Your task to perform on an android device: Search for 8K TVs on Best Buy. Image 0: 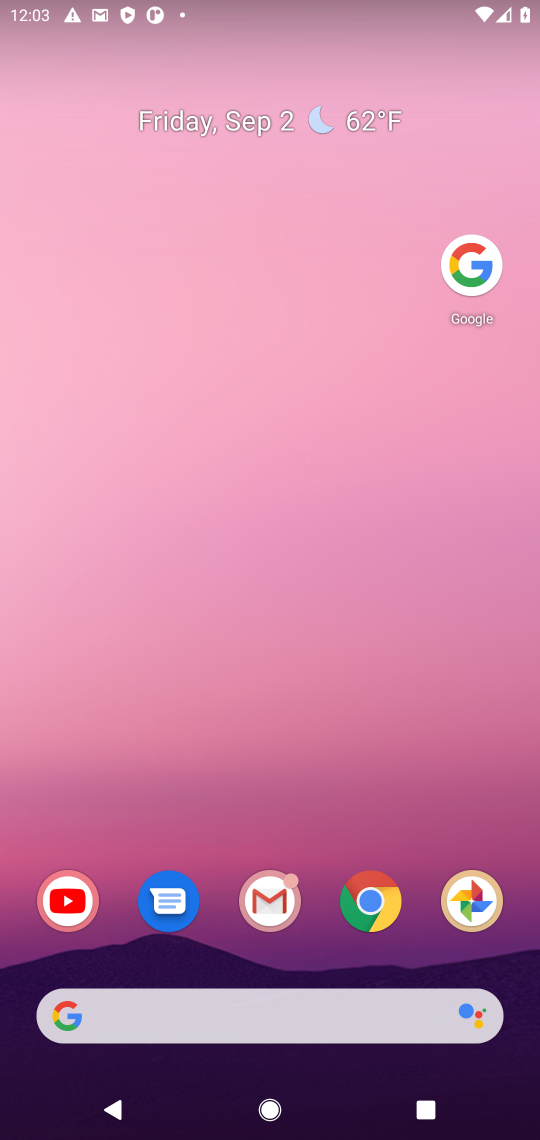
Step 0: drag from (160, 624) to (160, 525)
Your task to perform on an android device: Search for 8K TVs on Best Buy. Image 1: 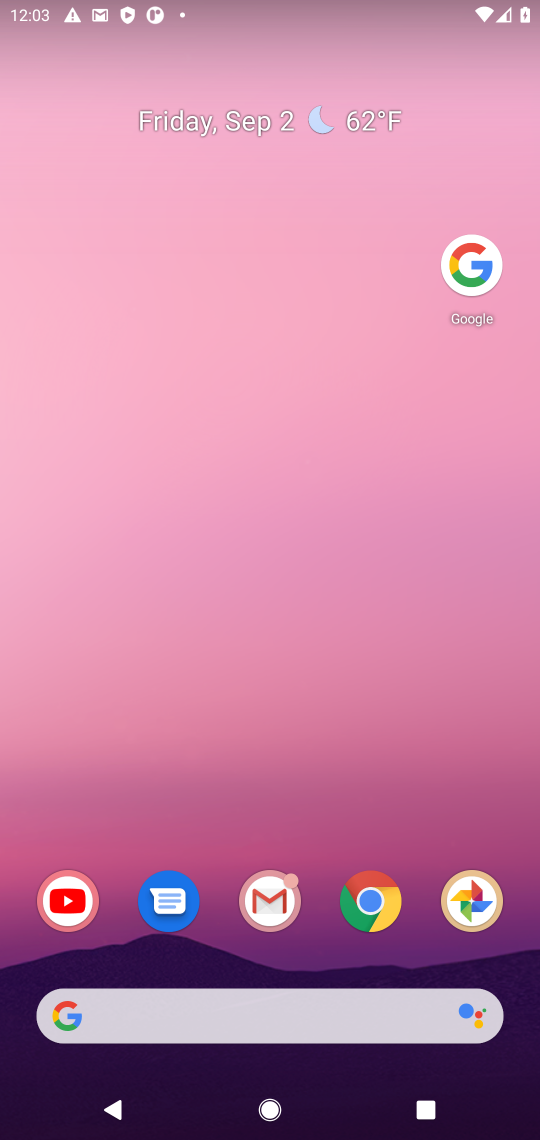
Step 1: click (287, 295)
Your task to perform on an android device: Search for 8K TVs on Best Buy. Image 2: 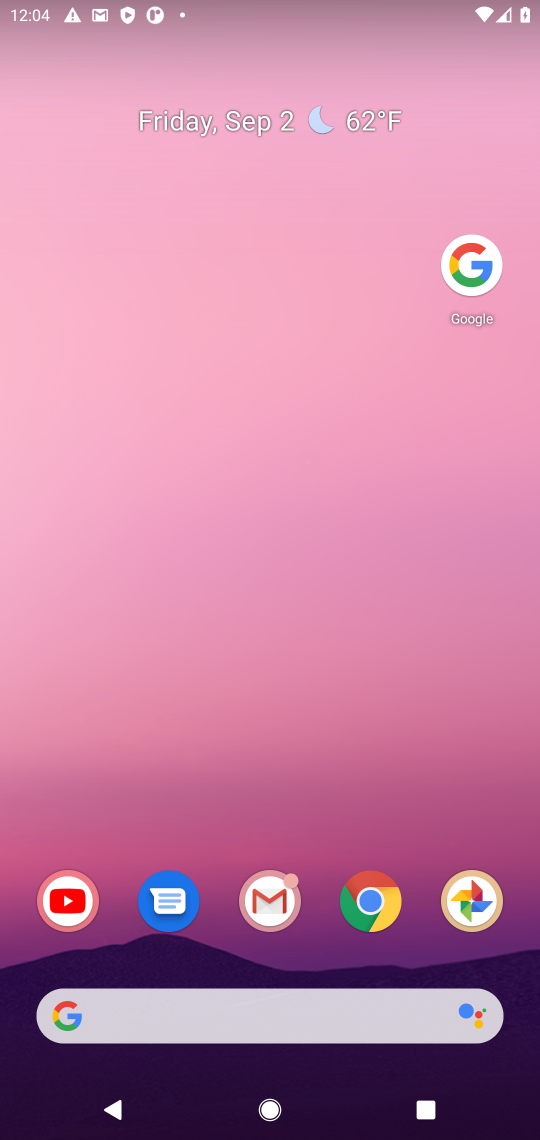
Step 2: drag from (283, 909) to (304, 256)
Your task to perform on an android device: Search for 8K TVs on Best Buy. Image 3: 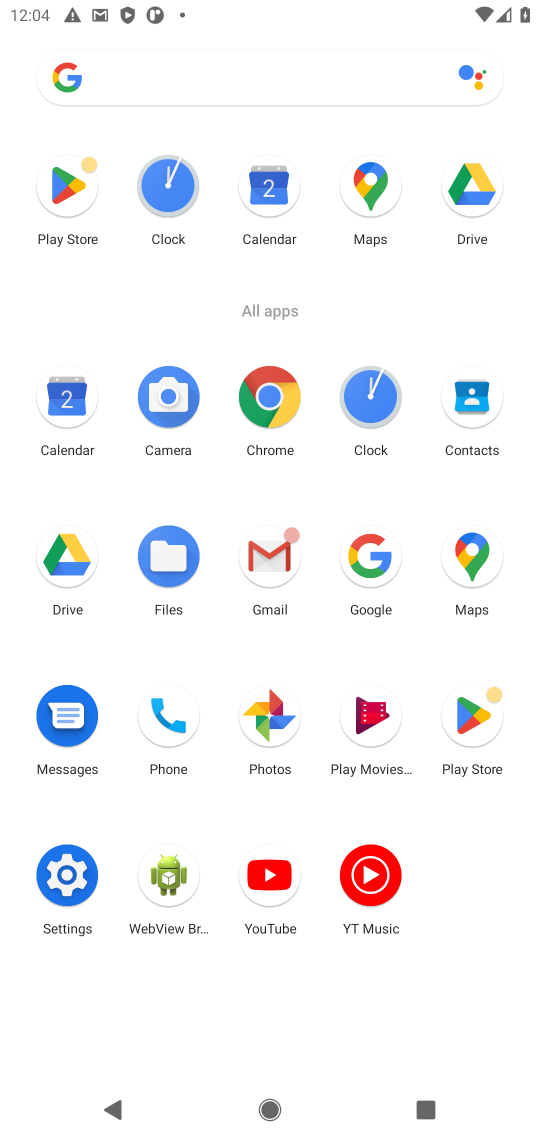
Step 3: click (380, 552)
Your task to perform on an android device: Search for 8K TVs on Best Buy. Image 4: 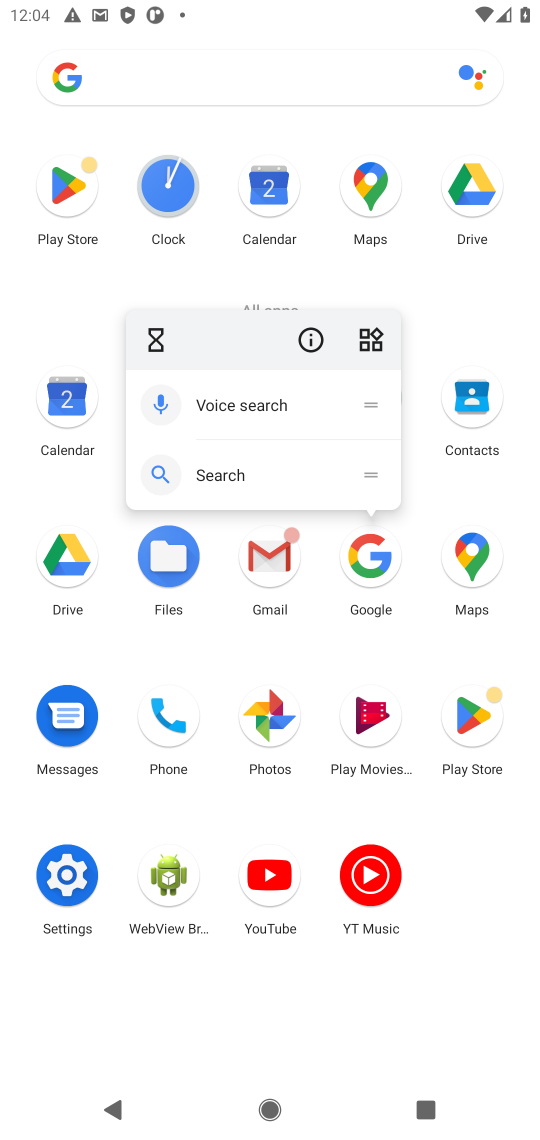
Step 4: click (380, 552)
Your task to perform on an android device: Search for 8K TVs on Best Buy. Image 5: 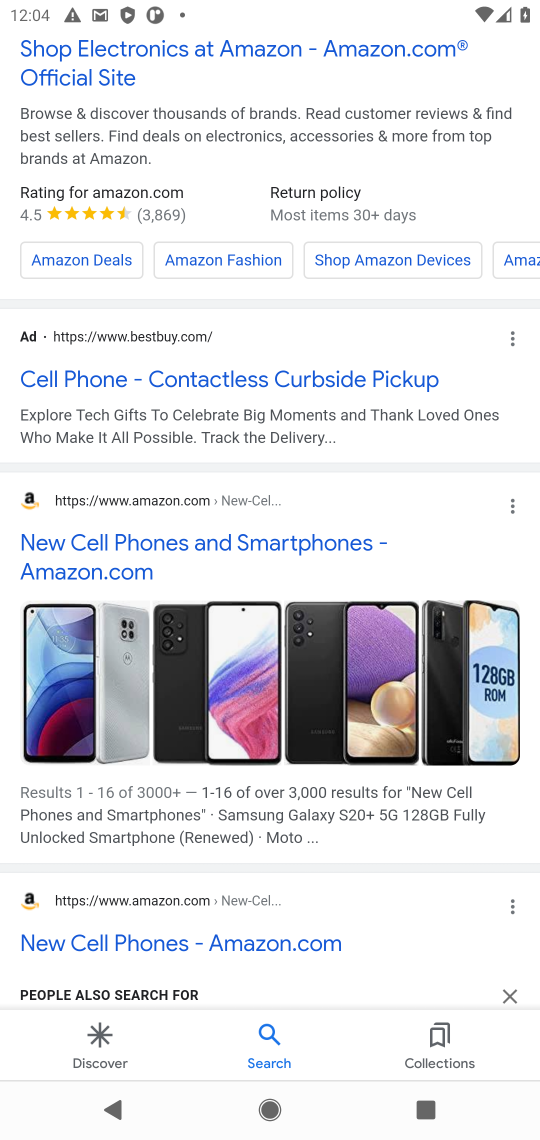
Step 5: drag from (287, 204) to (292, 968)
Your task to perform on an android device: Search for 8K TVs on Best Buy. Image 6: 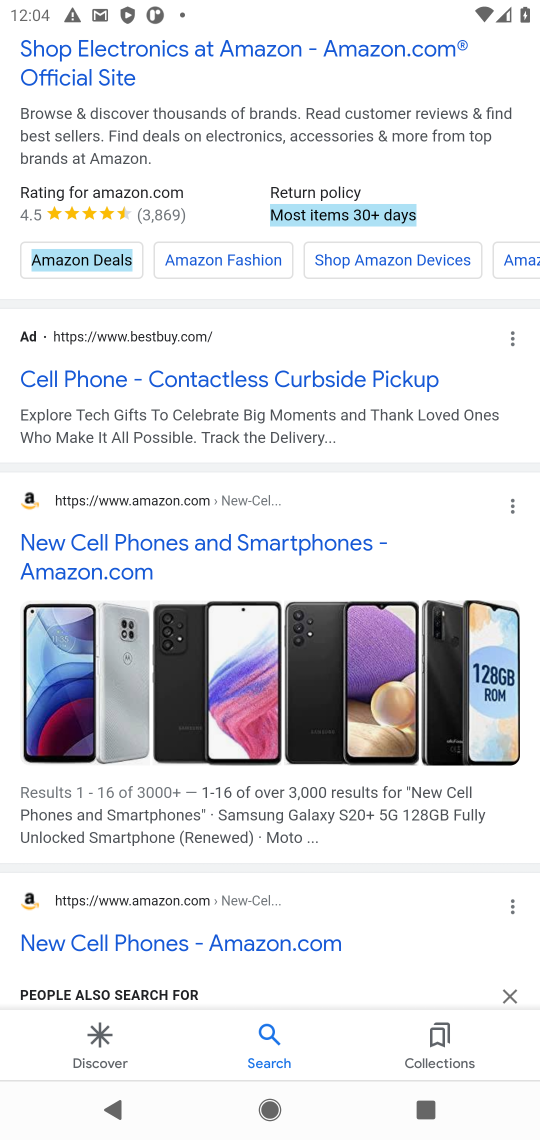
Step 6: drag from (238, 161) to (226, 1057)
Your task to perform on an android device: Search for 8K TVs on Best Buy. Image 7: 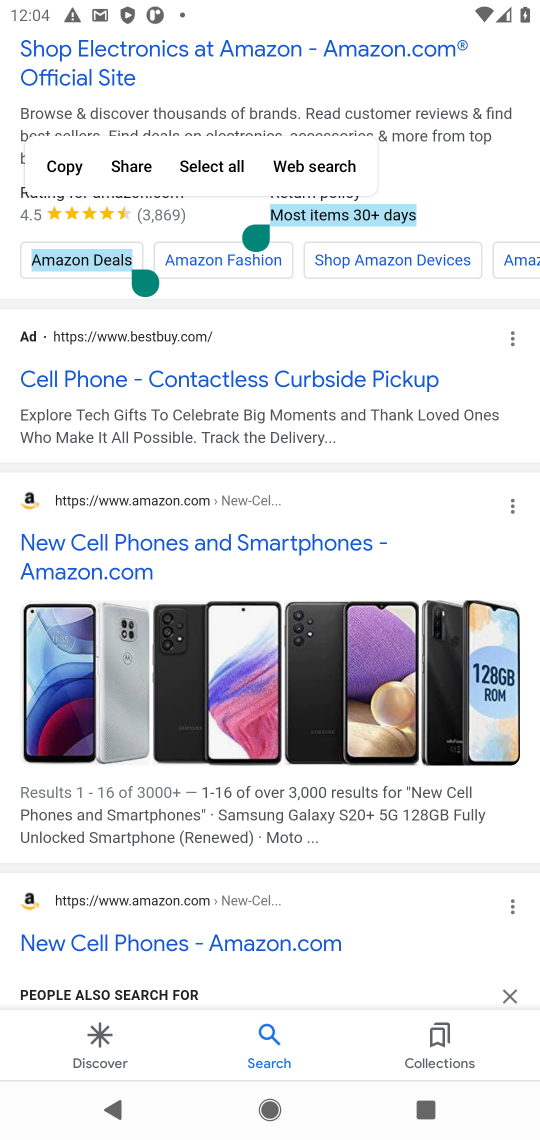
Step 7: drag from (443, 143) to (449, 742)
Your task to perform on an android device: Search for 8K TVs on Best Buy. Image 8: 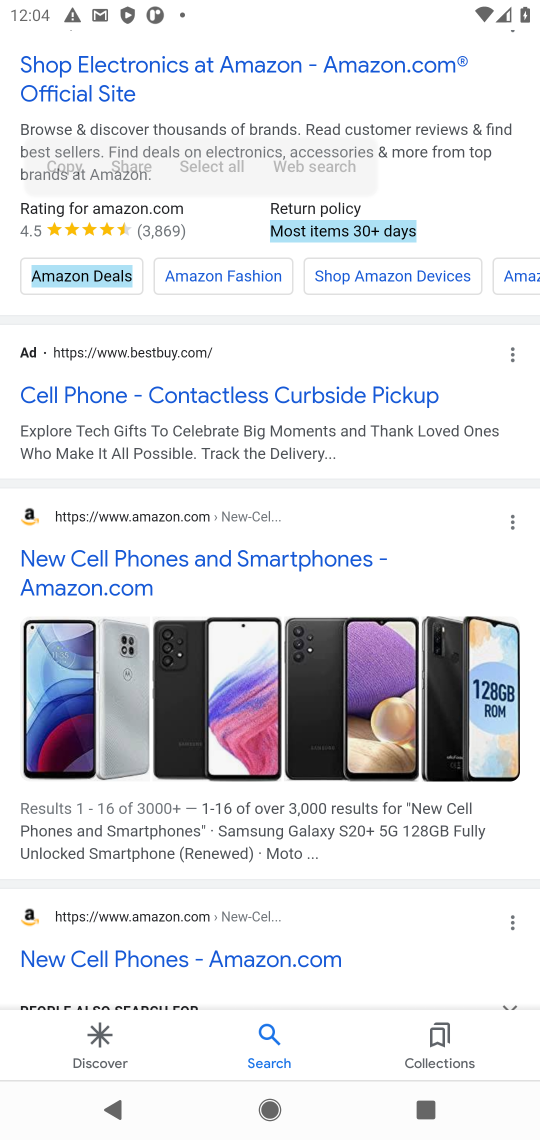
Step 8: drag from (418, 357) to (219, 828)
Your task to perform on an android device: Search for 8K TVs on Best Buy. Image 9: 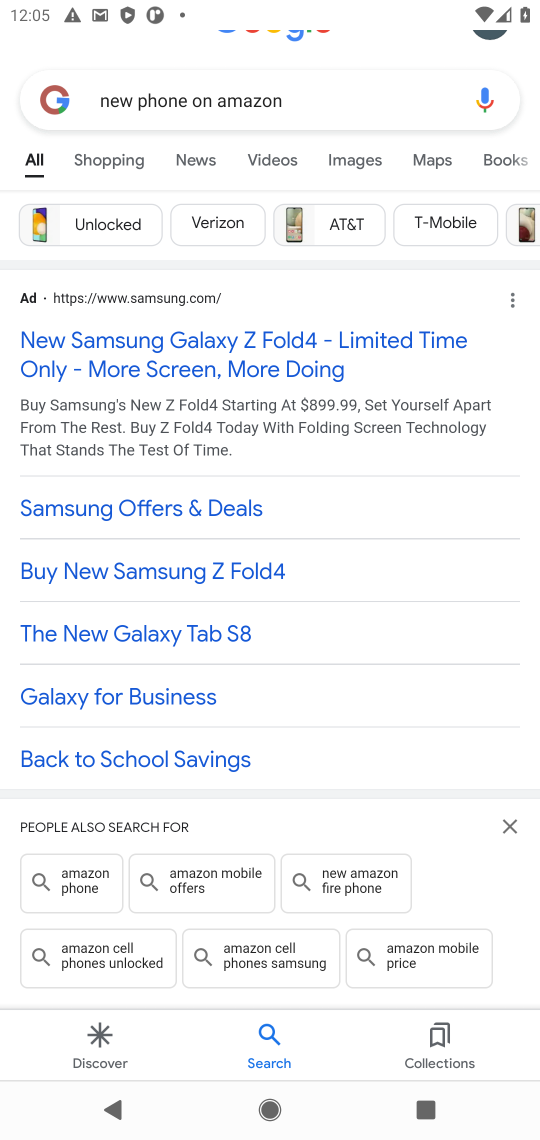
Step 9: click (256, 885)
Your task to perform on an android device: Search for 8K TVs on Best Buy. Image 10: 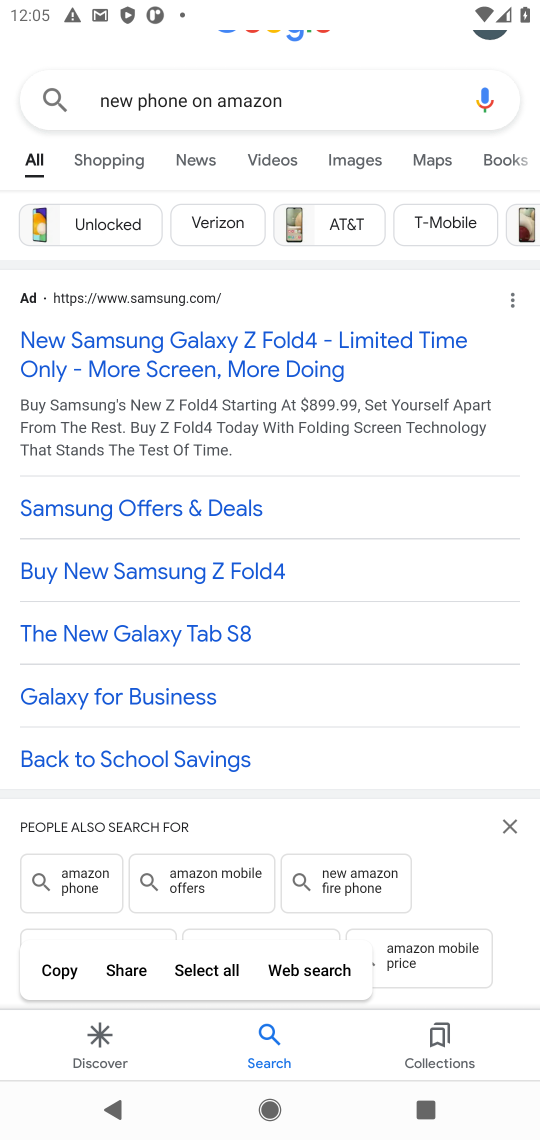
Step 10: click (334, 90)
Your task to perform on an android device: Search for 8K TVs on Best Buy. Image 11: 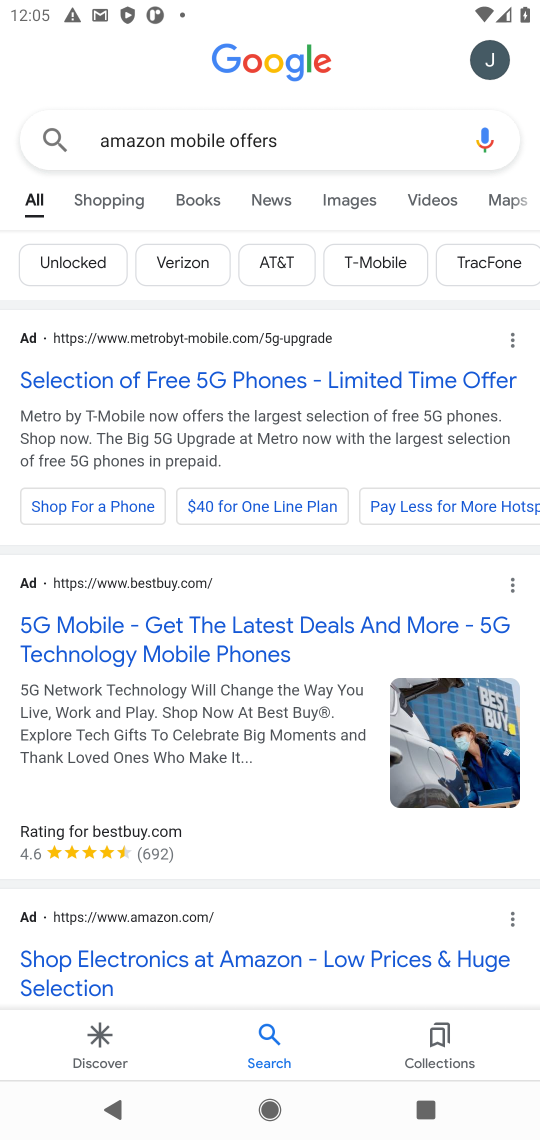
Step 11: click (400, 136)
Your task to perform on an android device: Search for 8K TVs on Best Buy. Image 12: 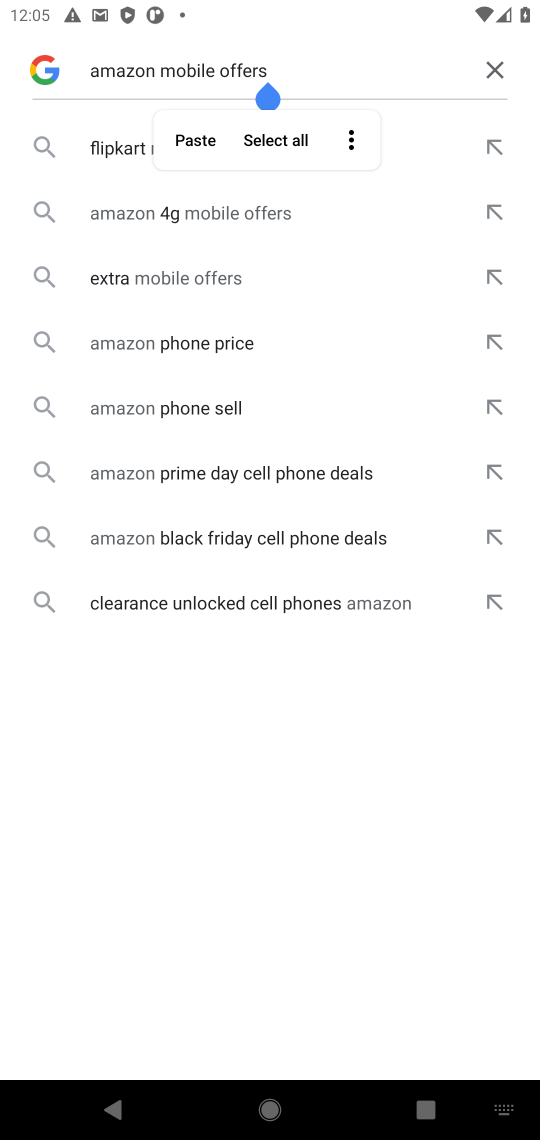
Step 12: click (494, 67)
Your task to perform on an android device: Search for 8K TVs on Best Buy. Image 13: 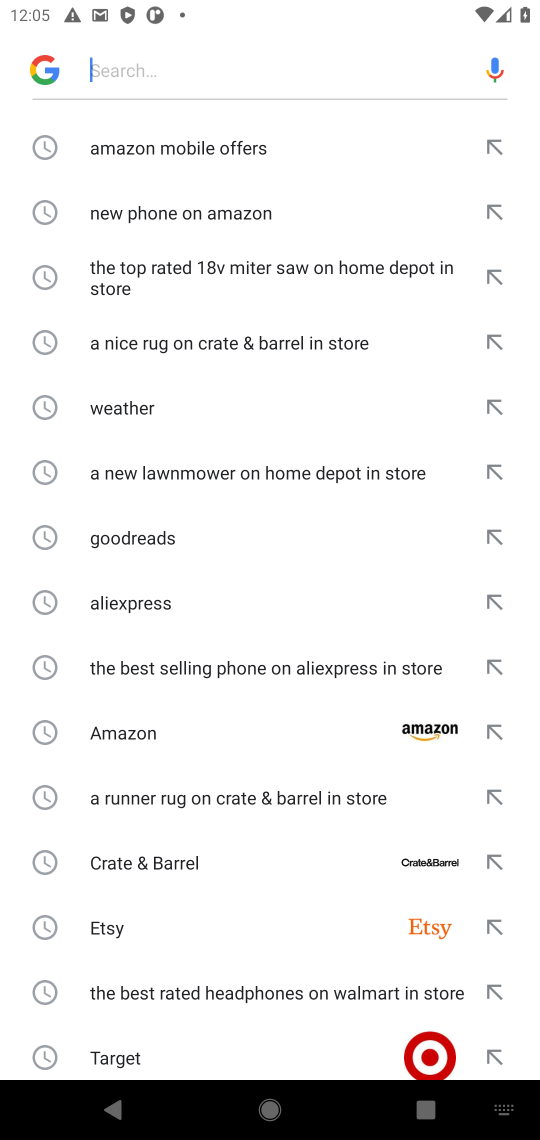
Step 13: click (153, 65)
Your task to perform on an android device: Search for 8K TVs on Best Buy. Image 14: 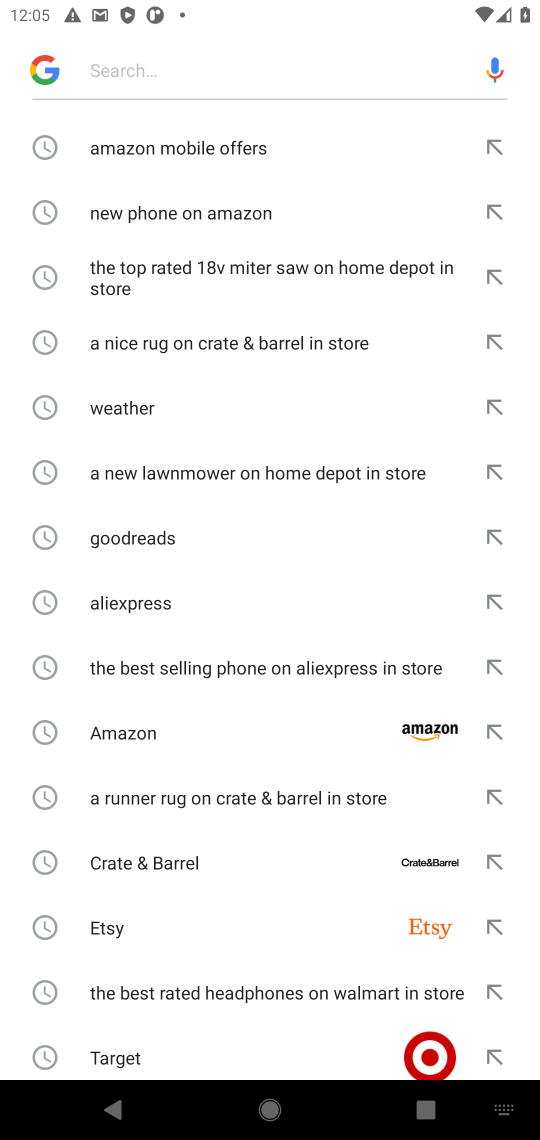
Step 14: type "8K TVs on Best Buy. "
Your task to perform on an android device: Search for 8K TVs on Best Buy. Image 15: 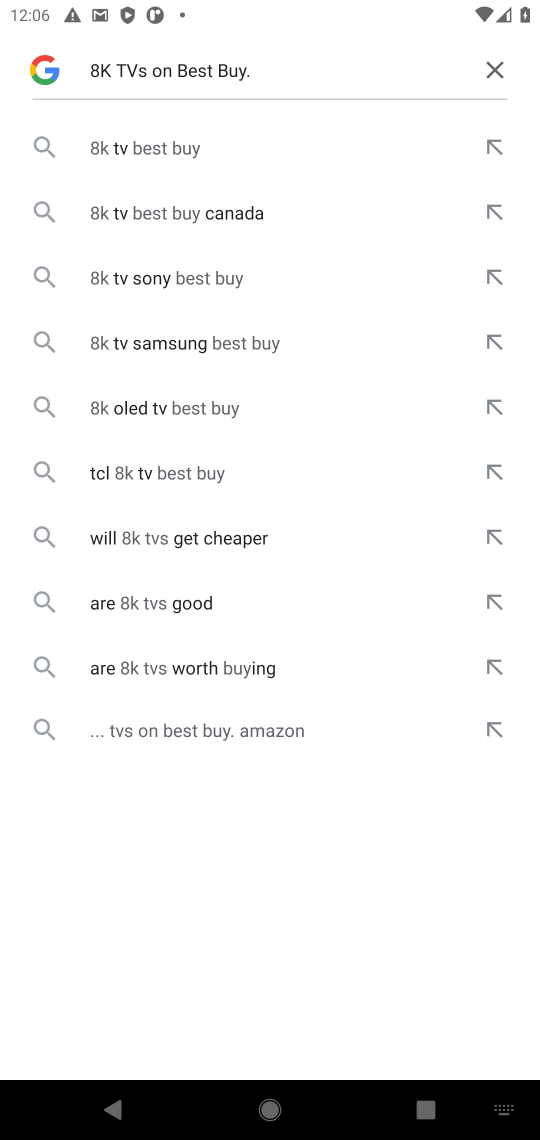
Step 15: click (171, 149)
Your task to perform on an android device: Search for 8K TVs on Best Buy. Image 16: 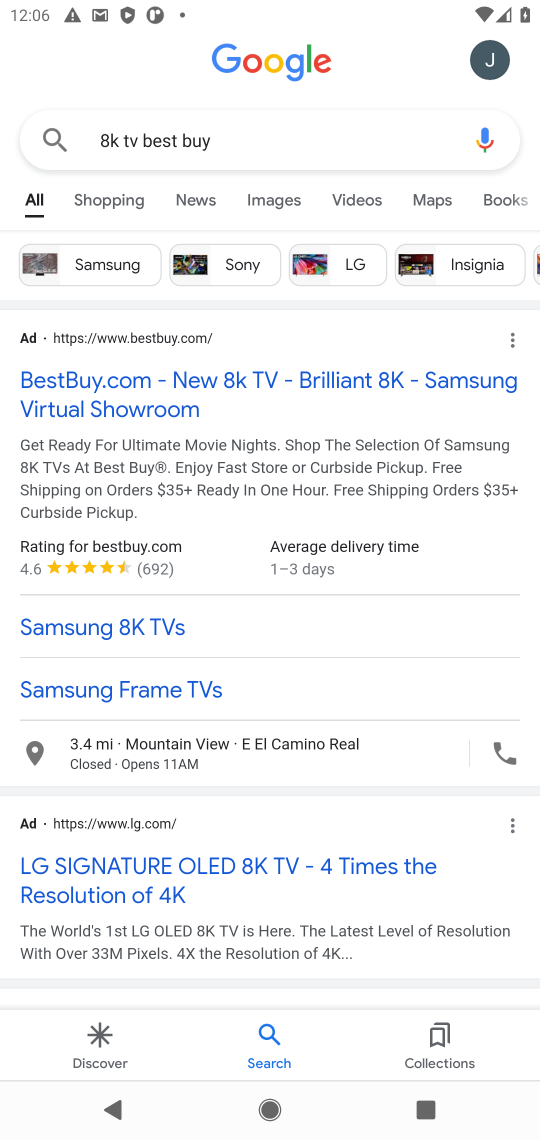
Step 16: click (101, 374)
Your task to perform on an android device: Search for 8K TVs on Best Buy. Image 17: 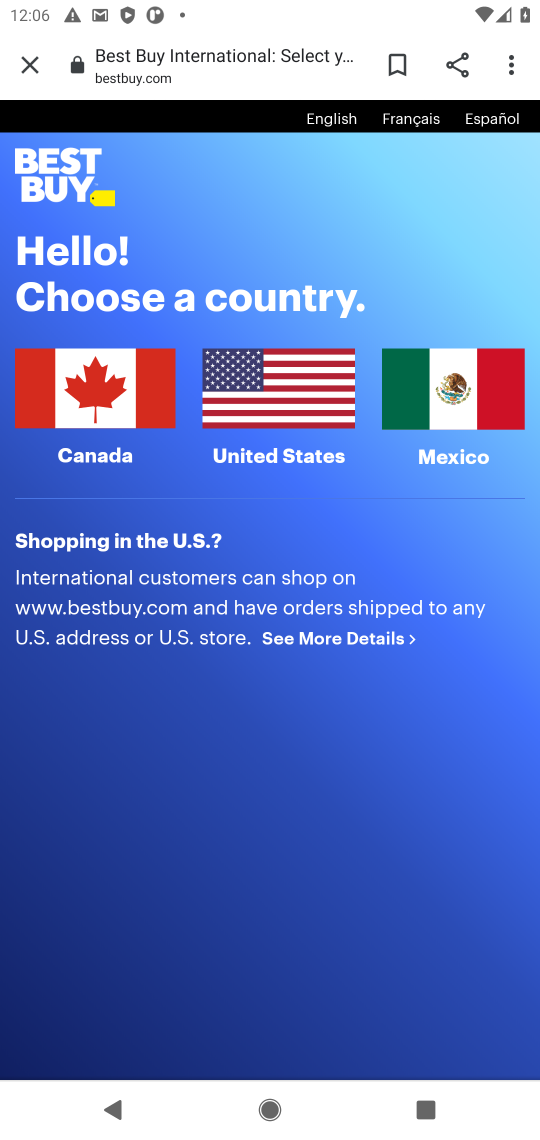
Step 17: click (320, 383)
Your task to perform on an android device: Search for 8K TVs on Best Buy. Image 18: 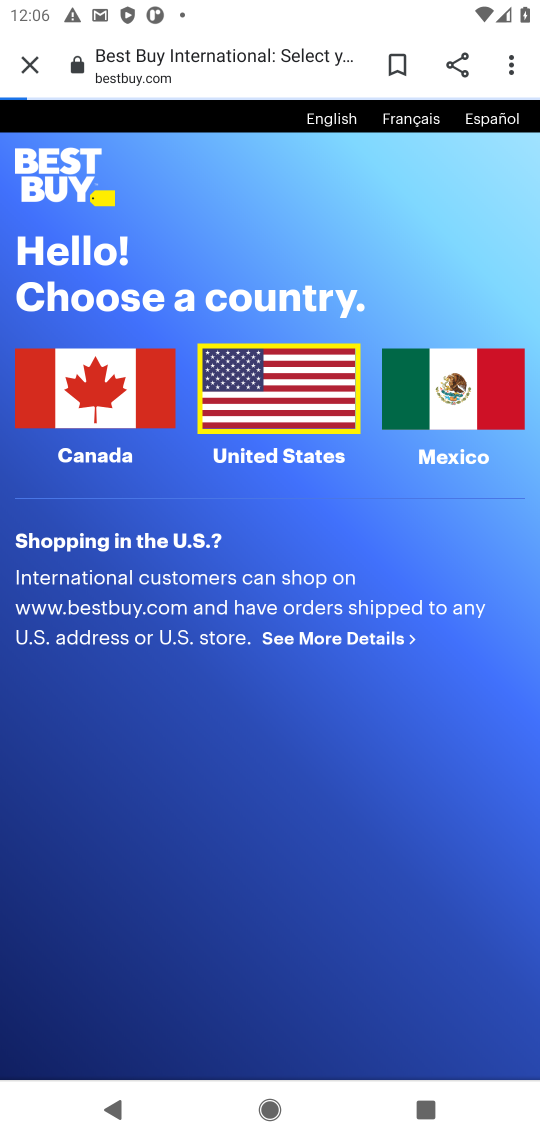
Step 18: click (230, 368)
Your task to perform on an android device: Search for 8K TVs on Best Buy. Image 19: 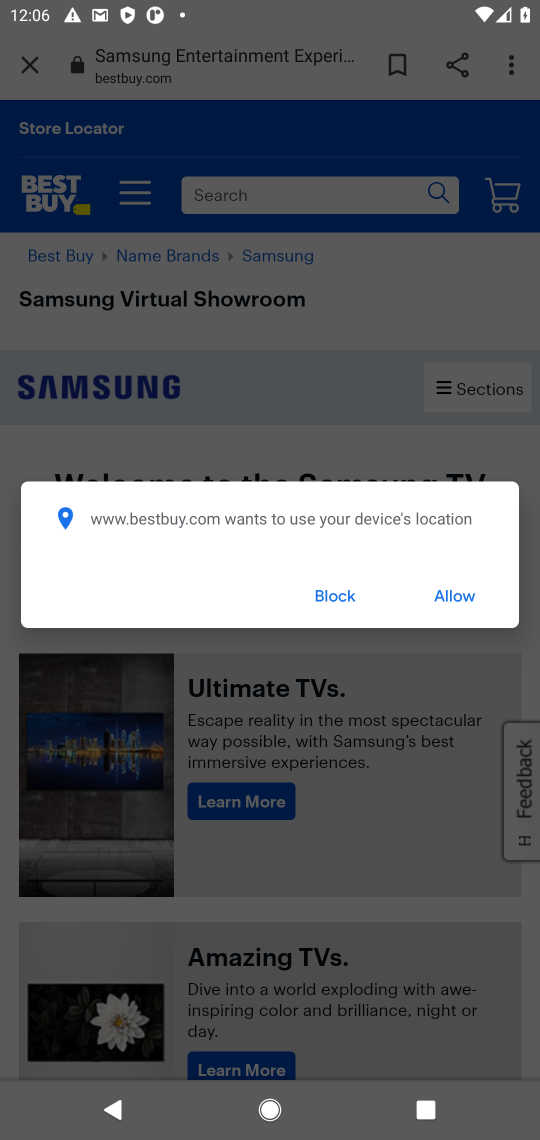
Step 19: click (453, 587)
Your task to perform on an android device: Search for 8K TVs on Best Buy. Image 20: 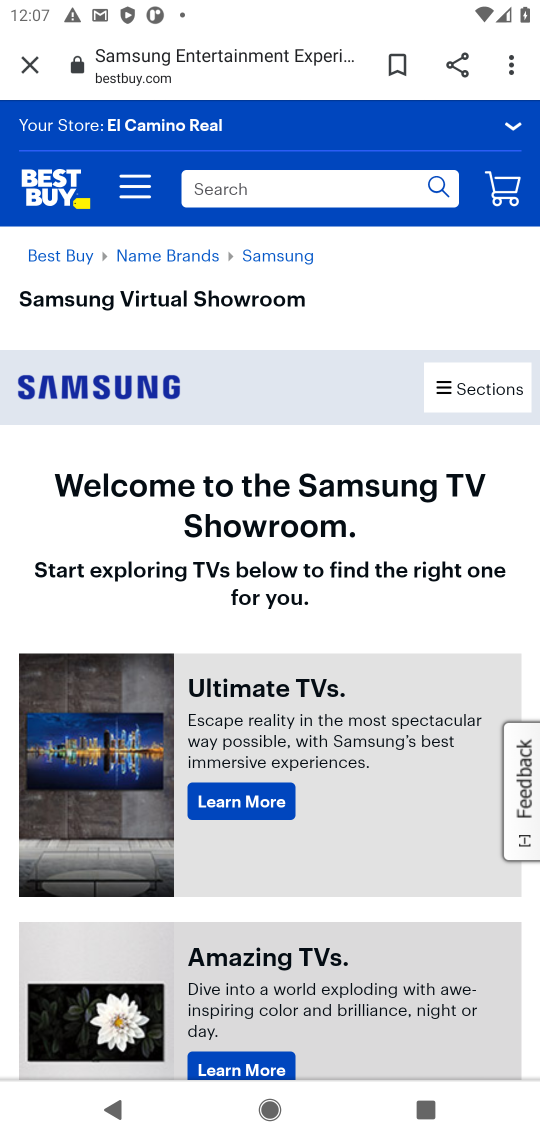
Step 20: click (304, 180)
Your task to perform on an android device: Search for 8K TVs on Best Buy. Image 21: 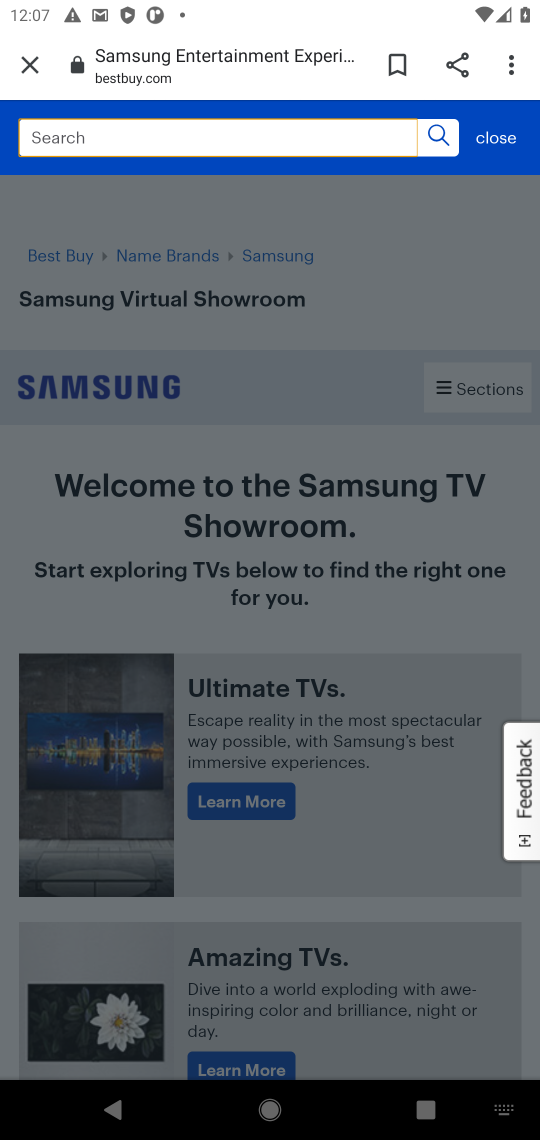
Step 21: type " 8K TVs  "
Your task to perform on an android device: Search for 8K TVs on Best Buy. Image 22: 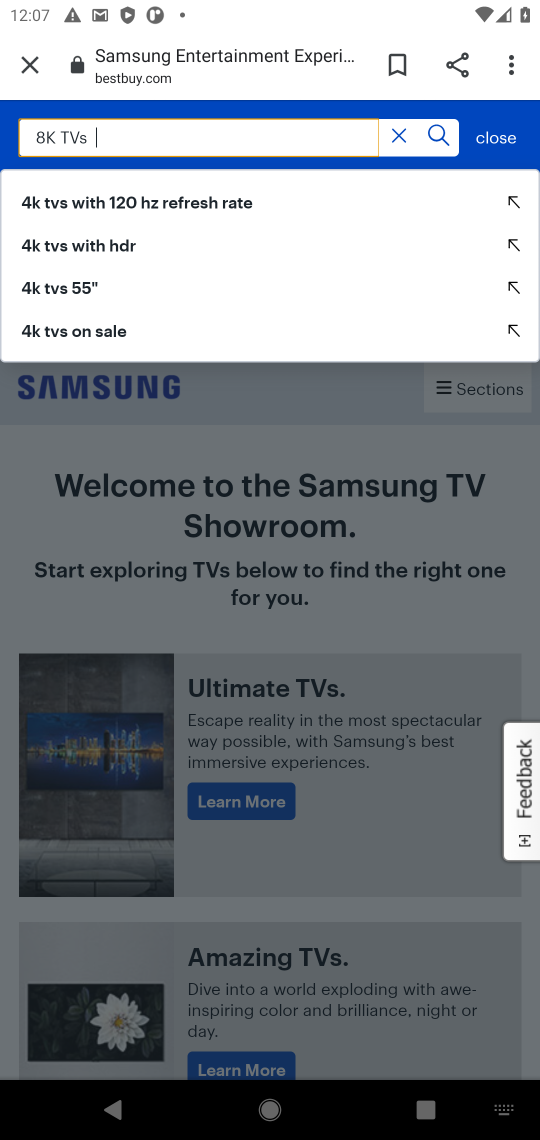
Step 22: click (185, 208)
Your task to perform on an android device: Search for 8K TVs on Best Buy. Image 23: 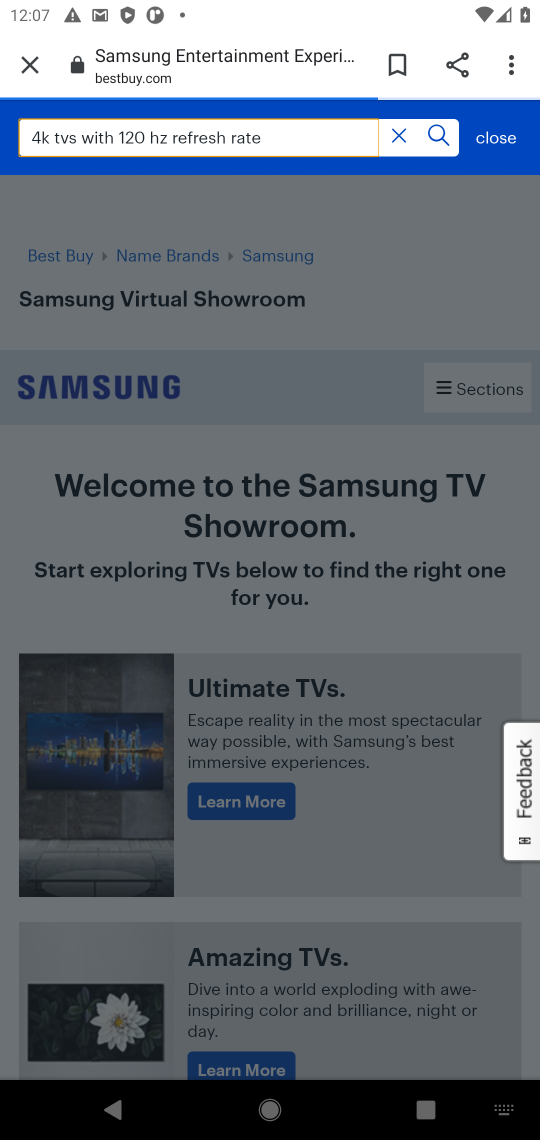
Step 23: click (440, 134)
Your task to perform on an android device: Search for 8K TVs on Best Buy. Image 24: 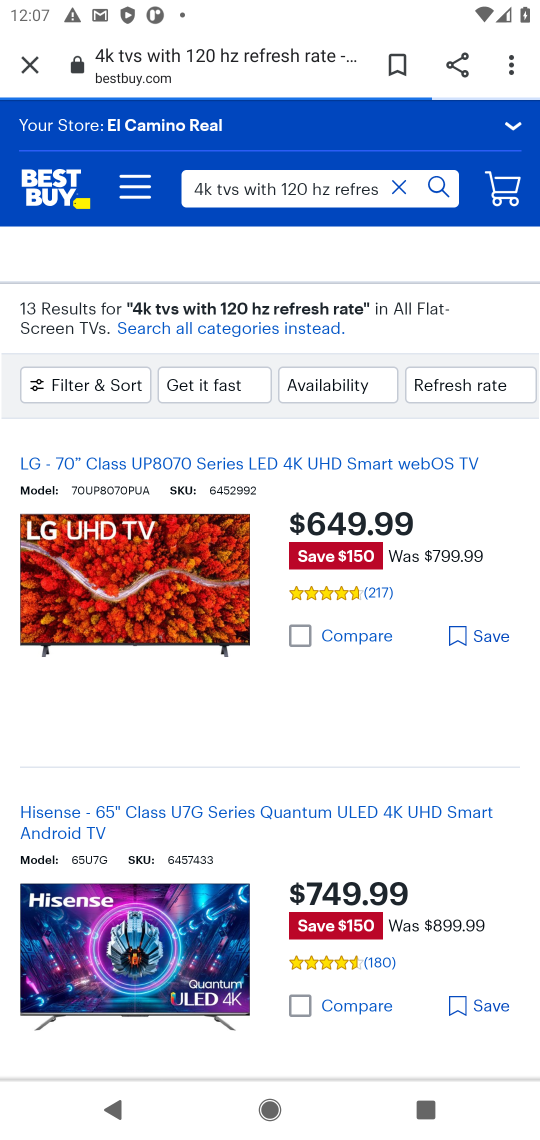
Step 24: task complete